Your task to perform on an android device: Is it going to rain tomorrow? Image 0: 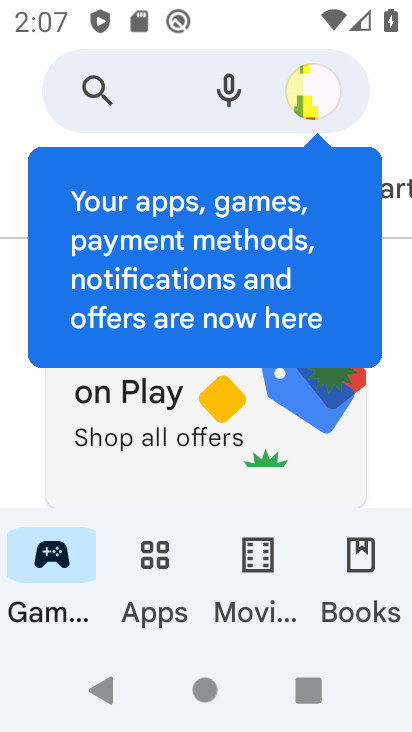
Step 0: press home button
Your task to perform on an android device: Is it going to rain tomorrow? Image 1: 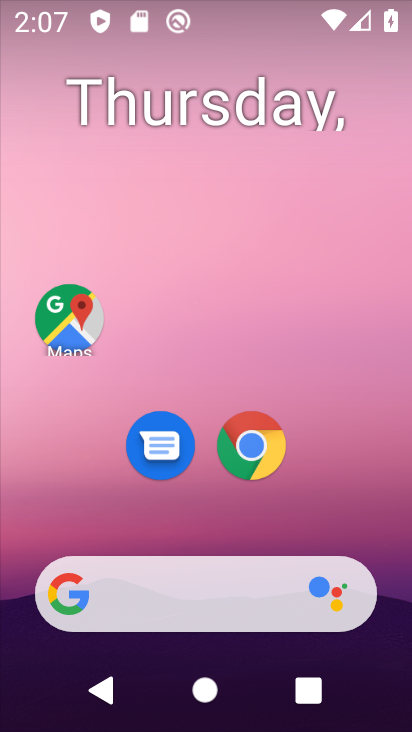
Step 1: click (134, 619)
Your task to perform on an android device: Is it going to rain tomorrow? Image 2: 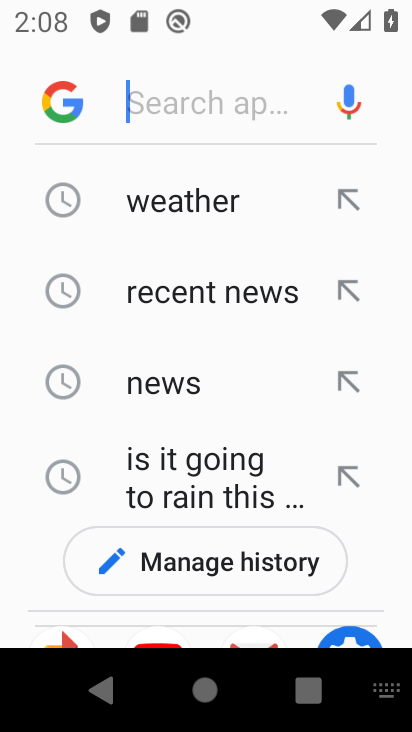
Step 2: click (179, 204)
Your task to perform on an android device: Is it going to rain tomorrow? Image 3: 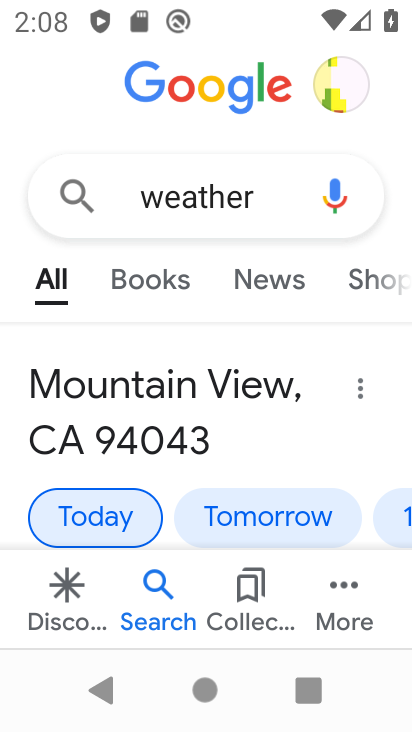
Step 3: click (280, 518)
Your task to perform on an android device: Is it going to rain tomorrow? Image 4: 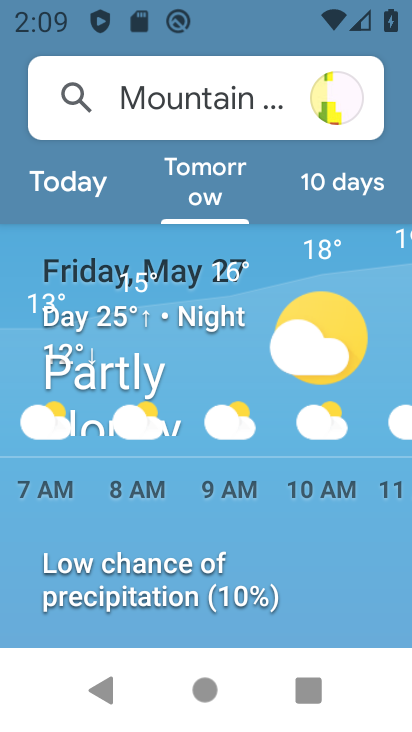
Step 4: task complete